Your task to perform on an android device: Go to sound settings Image 0: 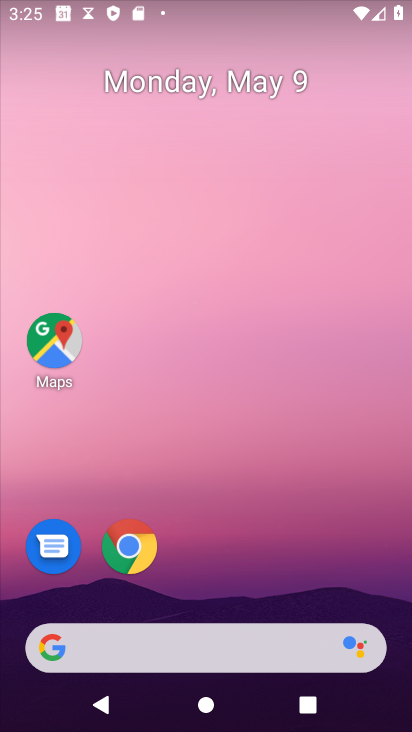
Step 0: drag from (340, 529) to (329, 136)
Your task to perform on an android device: Go to sound settings Image 1: 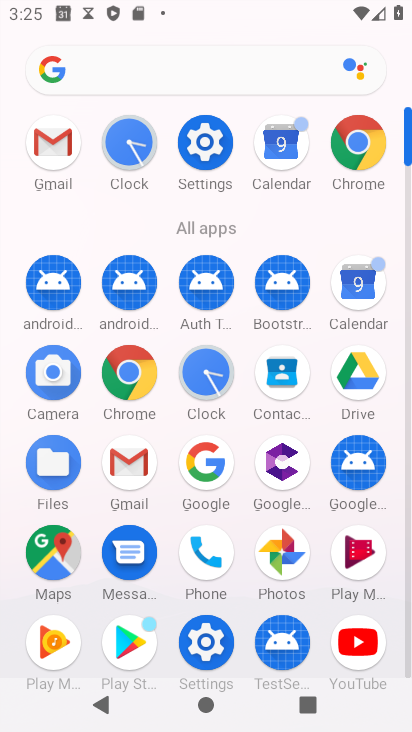
Step 1: click (214, 132)
Your task to perform on an android device: Go to sound settings Image 2: 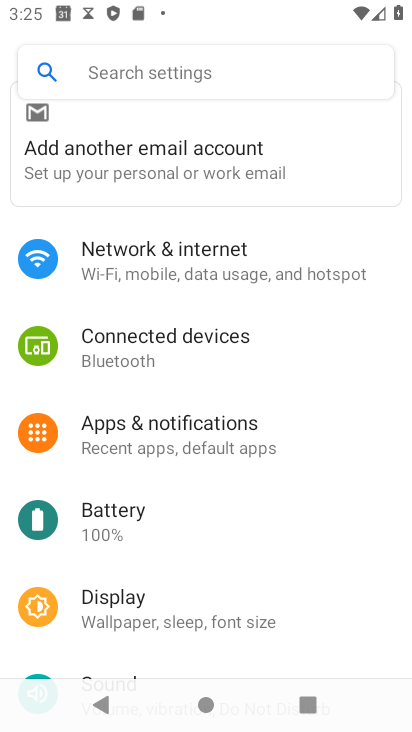
Step 2: drag from (240, 551) to (181, 310)
Your task to perform on an android device: Go to sound settings Image 3: 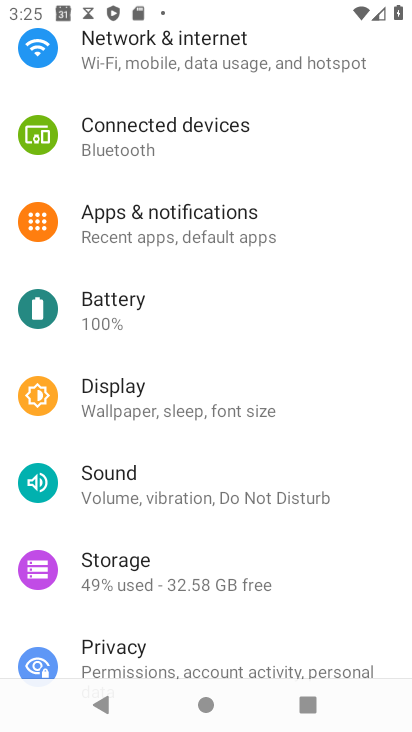
Step 3: drag from (173, 579) to (169, 483)
Your task to perform on an android device: Go to sound settings Image 4: 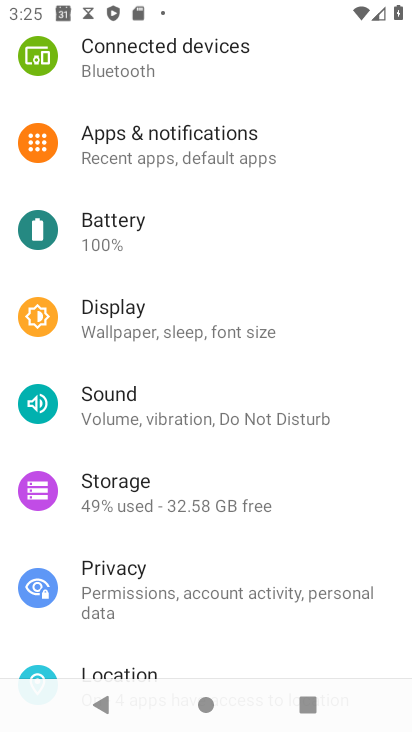
Step 4: click (145, 427)
Your task to perform on an android device: Go to sound settings Image 5: 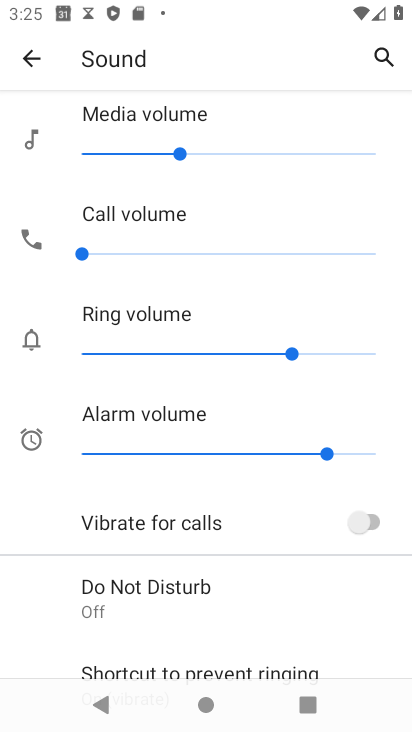
Step 5: task complete